Your task to perform on an android device: toggle improve location accuracy Image 0: 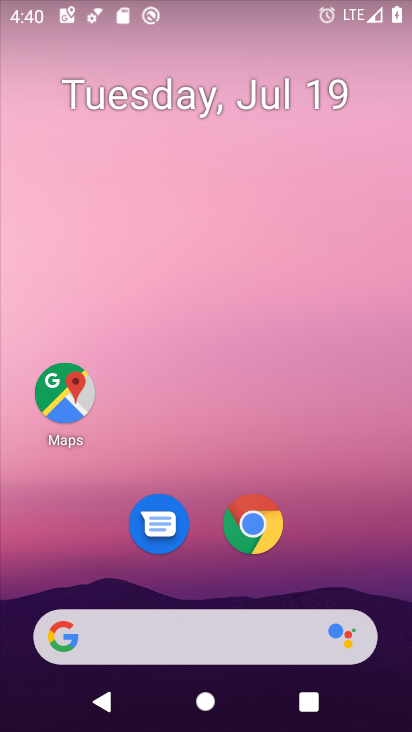
Step 0: drag from (336, 558) to (346, 39)
Your task to perform on an android device: toggle improve location accuracy Image 1: 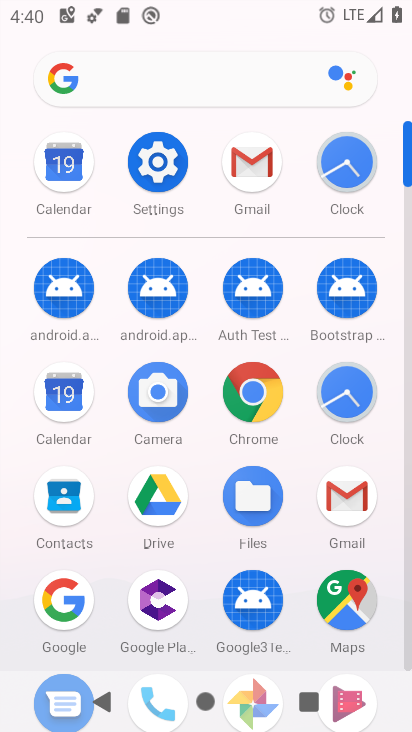
Step 1: click (169, 162)
Your task to perform on an android device: toggle improve location accuracy Image 2: 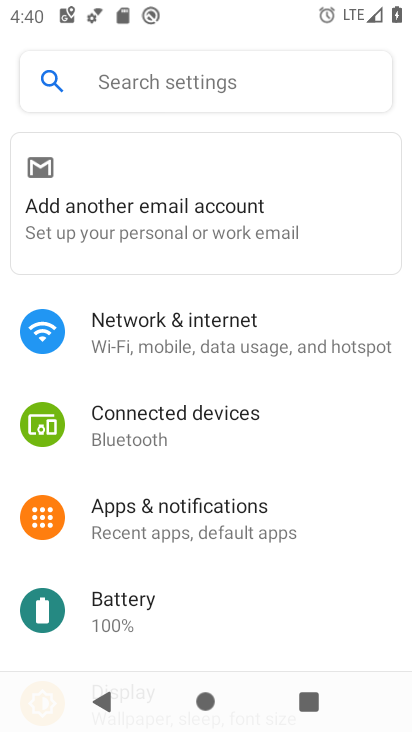
Step 2: drag from (248, 623) to (273, 68)
Your task to perform on an android device: toggle improve location accuracy Image 3: 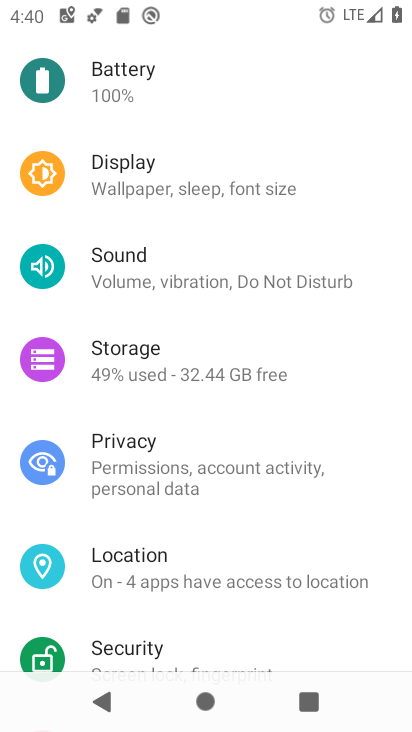
Step 3: click (243, 558)
Your task to perform on an android device: toggle improve location accuracy Image 4: 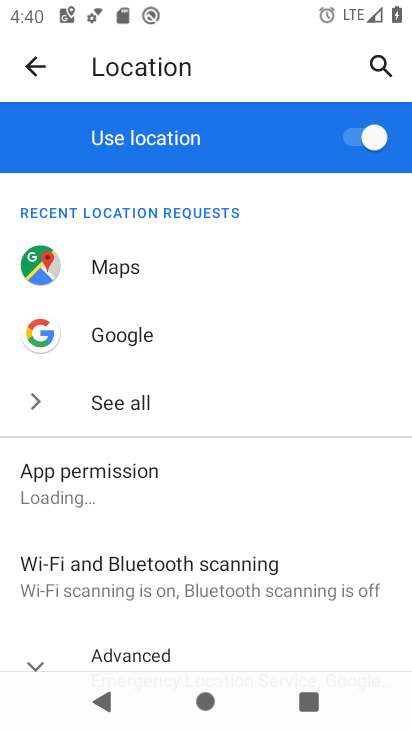
Step 4: drag from (284, 489) to (317, 149)
Your task to perform on an android device: toggle improve location accuracy Image 5: 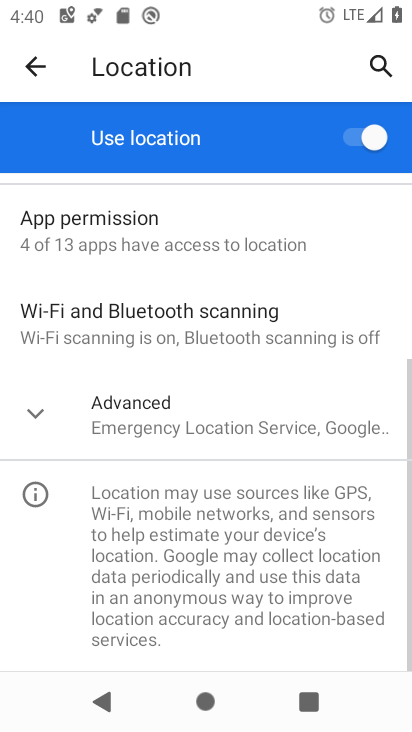
Step 5: click (35, 412)
Your task to perform on an android device: toggle improve location accuracy Image 6: 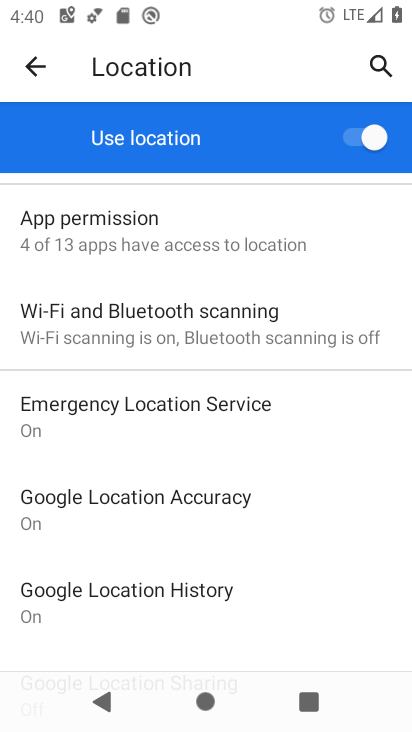
Step 6: drag from (288, 536) to (343, 295)
Your task to perform on an android device: toggle improve location accuracy Image 7: 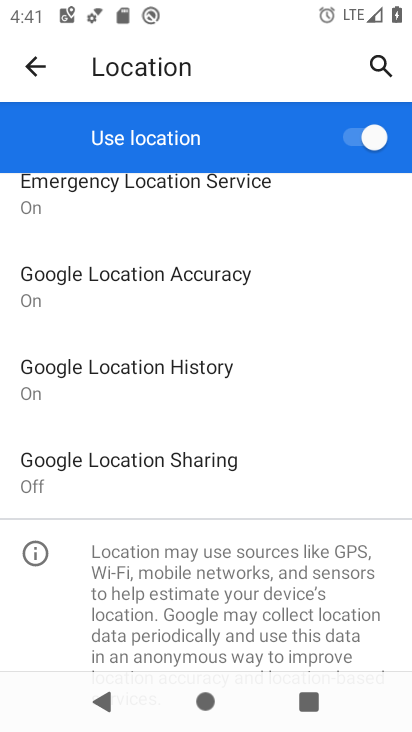
Step 7: click (236, 280)
Your task to perform on an android device: toggle improve location accuracy Image 8: 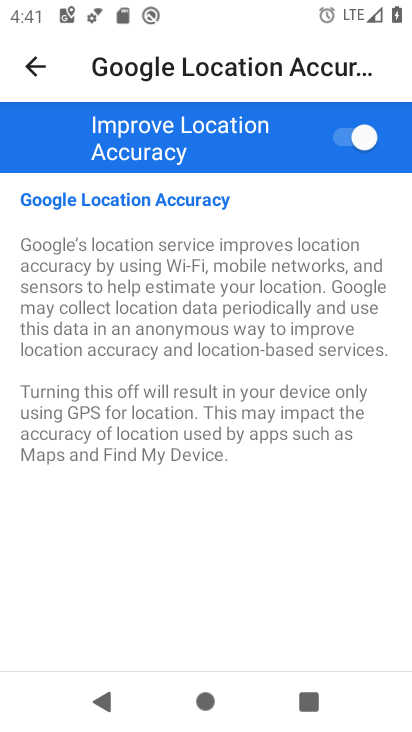
Step 8: click (358, 148)
Your task to perform on an android device: toggle improve location accuracy Image 9: 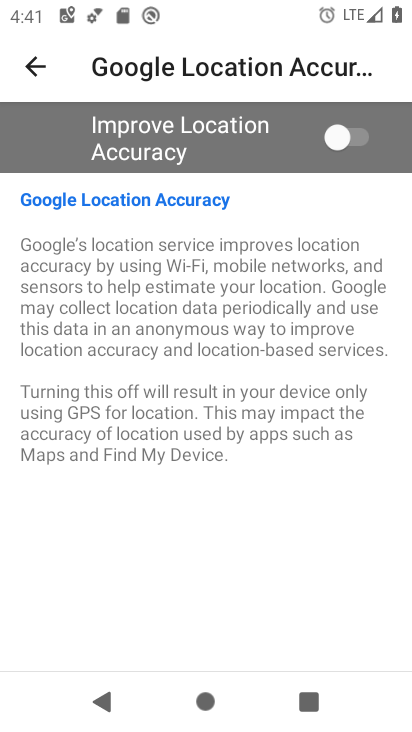
Step 9: task complete